Your task to perform on an android device: delete the emails in spam in the gmail app Image 0: 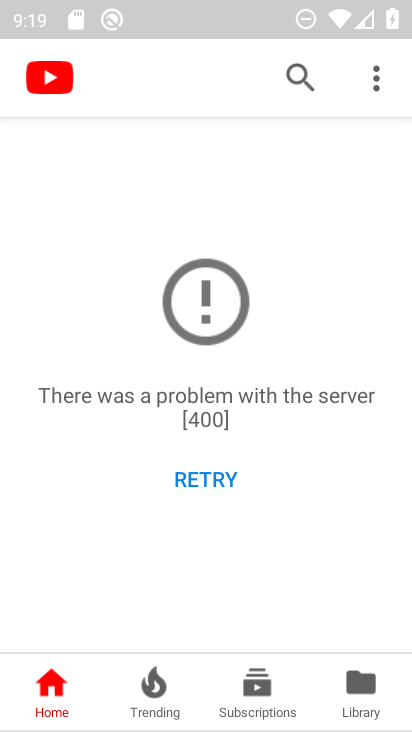
Step 0: press home button
Your task to perform on an android device: delete the emails in spam in the gmail app Image 1: 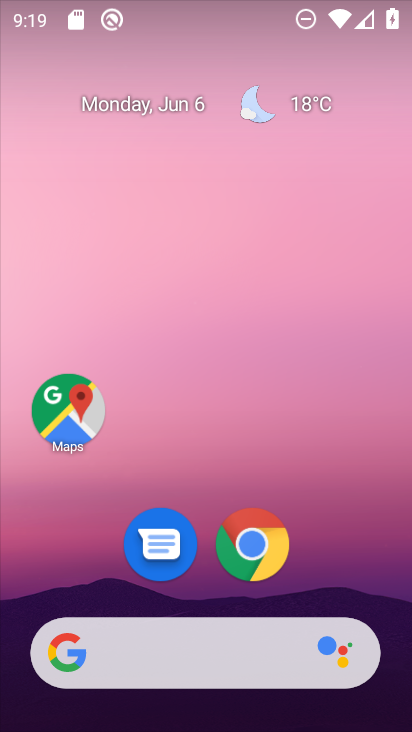
Step 1: drag from (391, 675) to (317, 168)
Your task to perform on an android device: delete the emails in spam in the gmail app Image 2: 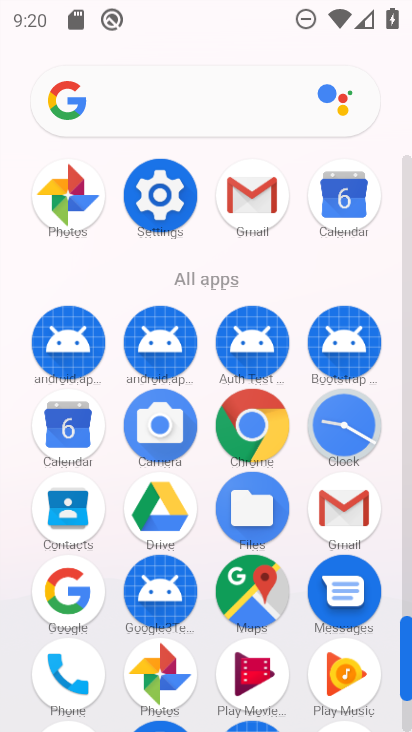
Step 2: click (405, 716)
Your task to perform on an android device: delete the emails in spam in the gmail app Image 3: 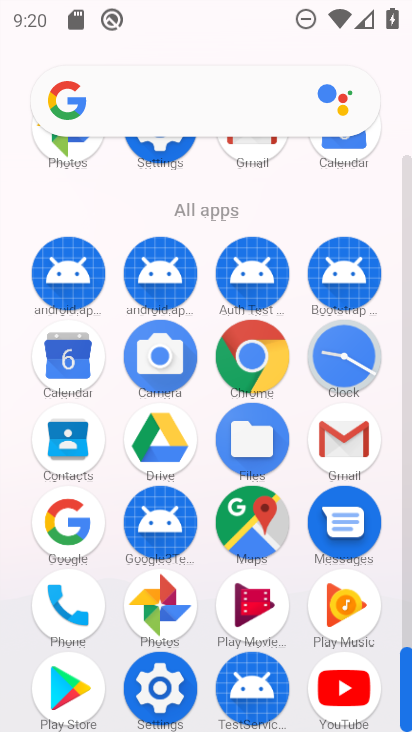
Step 3: click (344, 441)
Your task to perform on an android device: delete the emails in spam in the gmail app Image 4: 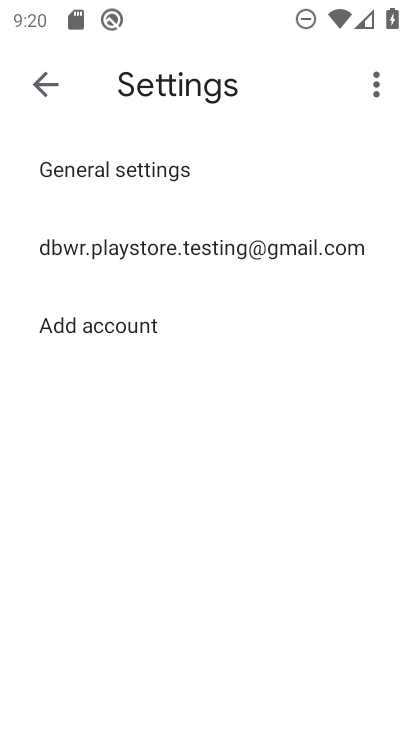
Step 4: press back button
Your task to perform on an android device: delete the emails in spam in the gmail app Image 5: 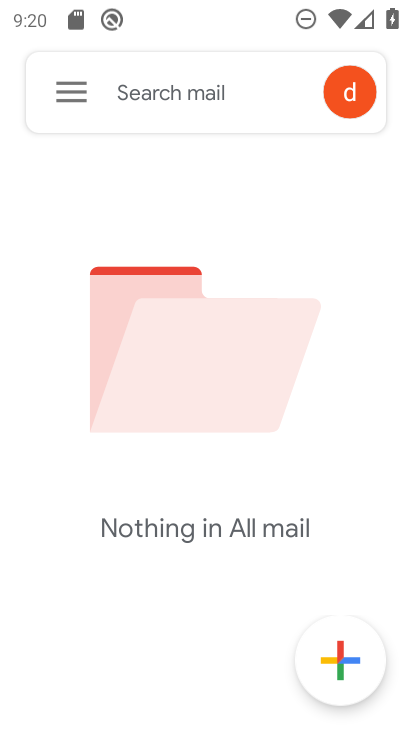
Step 5: click (56, 97)
Your task to perform on an android device: delete the emails in spam in the gmail app Image 6: 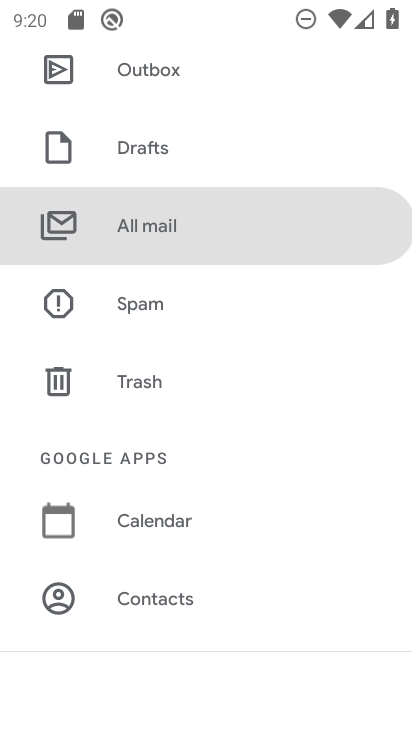
Step 6: click (134, 297)
Your task to perform on an android device: delete the emails in spam in the gmail app Image 7: 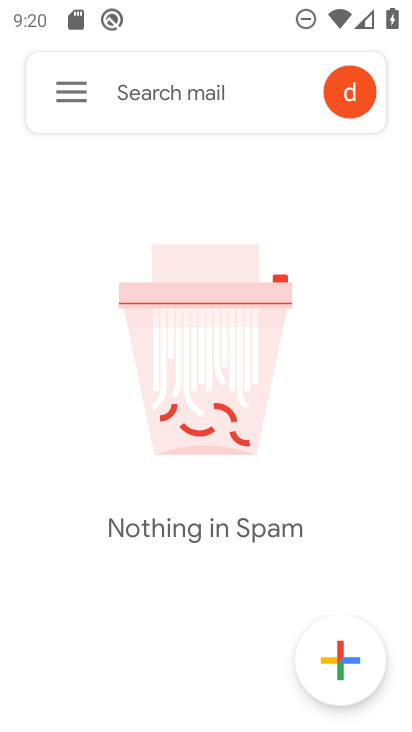
Step 7: task complete